Your task to perform on an android device: How do I get to the nearest Subway? Image 0: 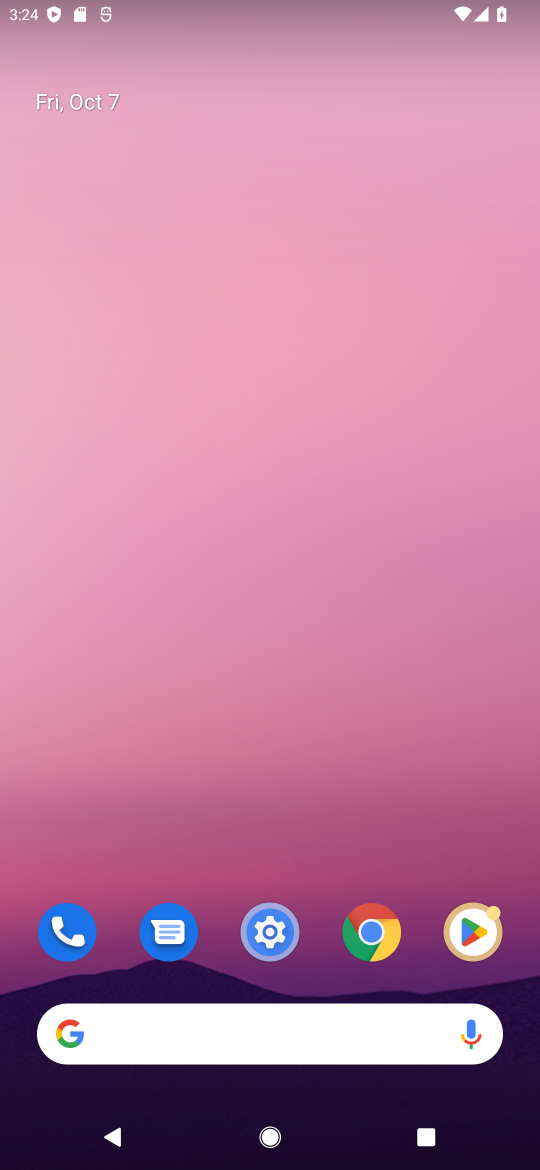
Step 0: drag from (311, 854) to (327, 251)
Your task to perform on an android device: How do I get to the nearest Subway? Image 1: 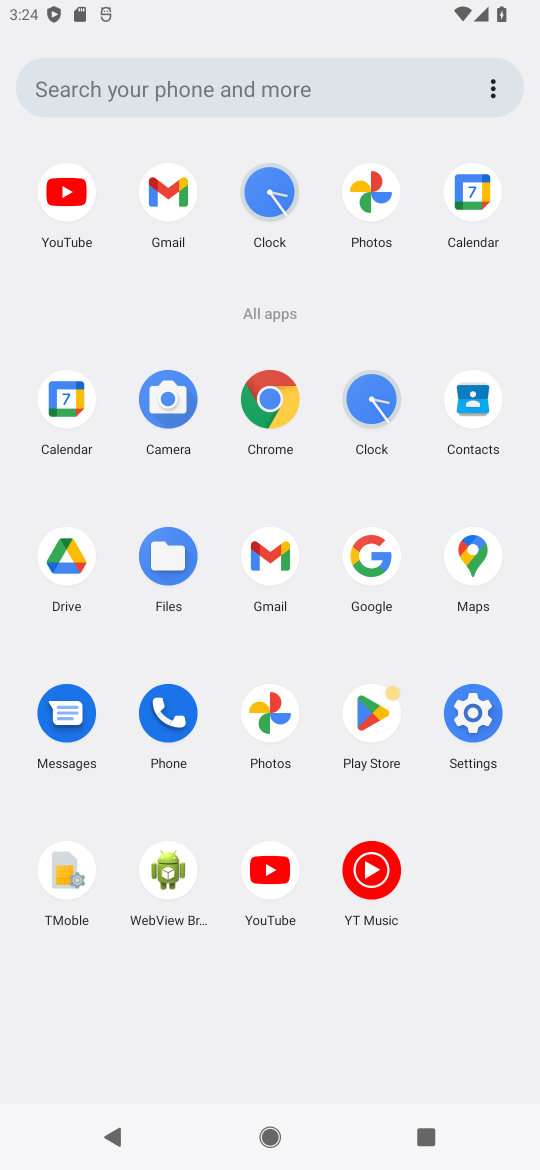
Step 1: click (365, 583)
Your task to perform on an android device: How do I get to the nearest Subway? Image 2: 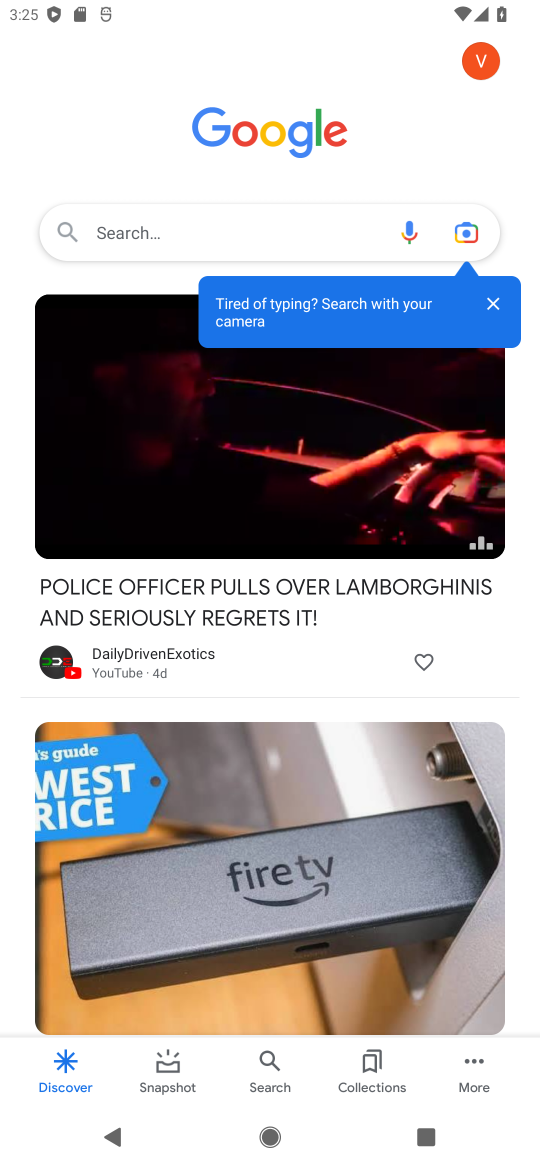
Step 2: click (216, 212)
Your task to perform on an android device: How do I get to the nearest Subway? Image 3: 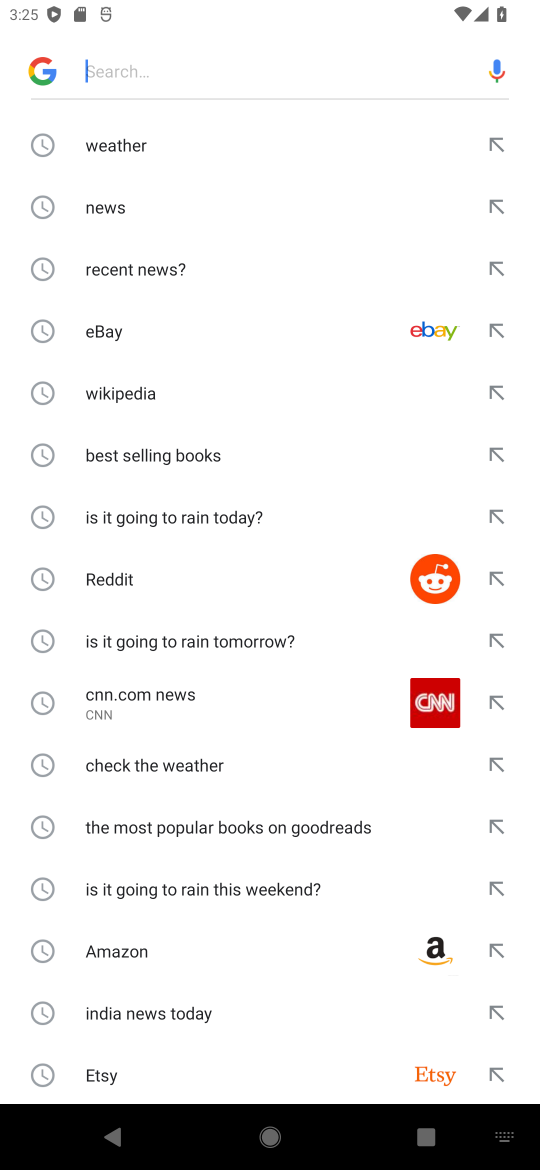
Step 3: type "nearest subway"
Your task to perform on an android device: How do I get to the nearest Subway? Image 4: 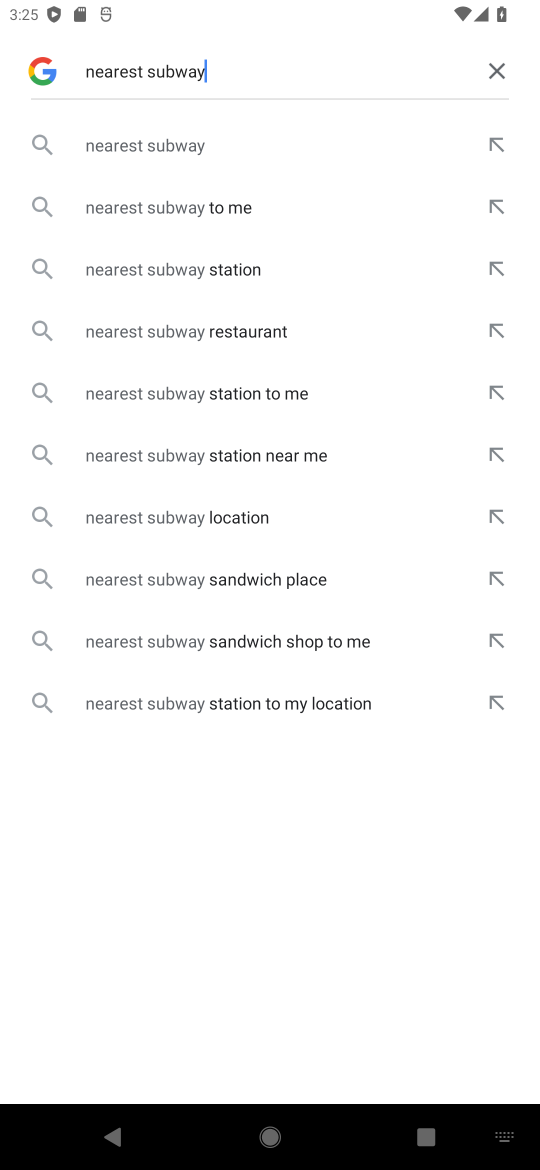
Step 4: click (241, 147)
Your task to perform on an android device: How do I get to the nearest Subway? Image 5: 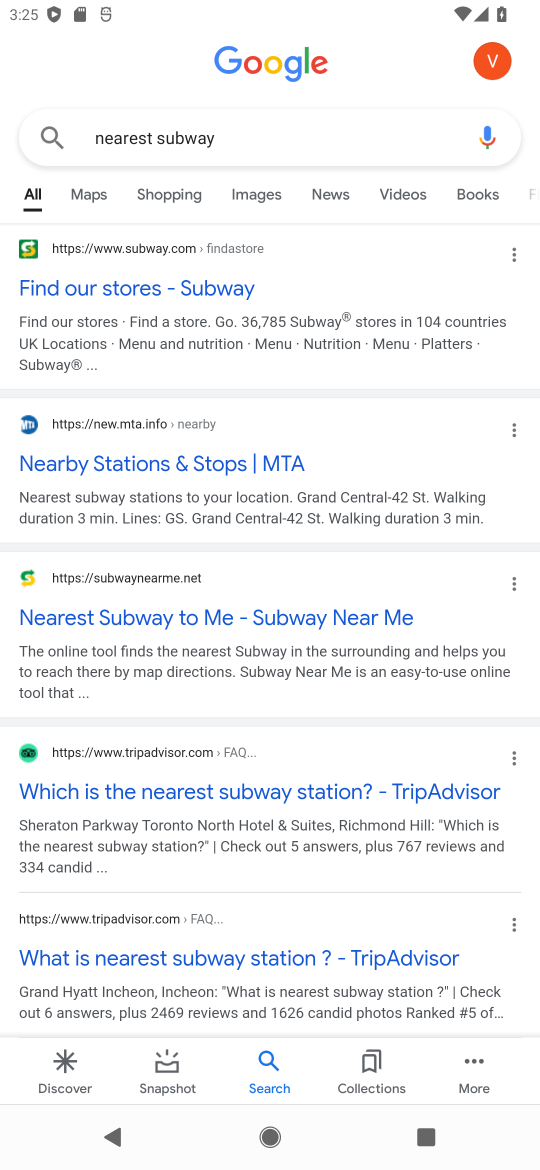
Step 5: click (98, 188)
Your task to perform on an android device: How do I get to the nearest Subway? Image 6: 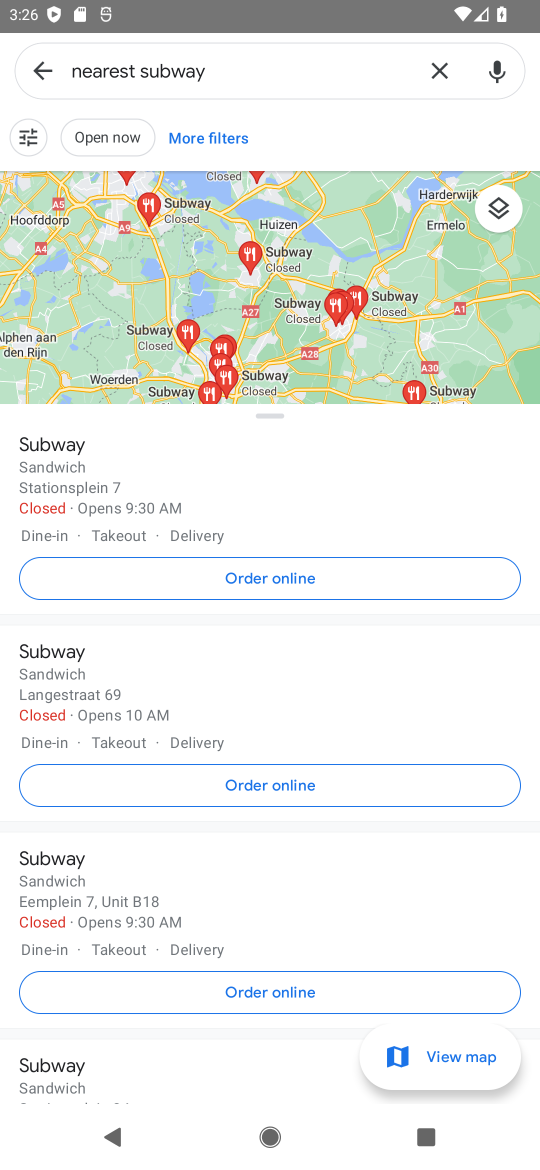
Step 6: task complete